Your task to perform on an android device: Toggle the flashlight Image 0: 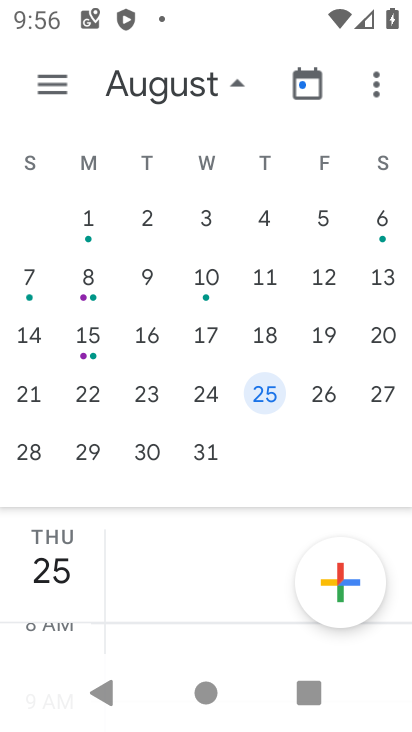
Step 0: press home button
Your task to perform on an android device: Toggle the flashlight Image 1: 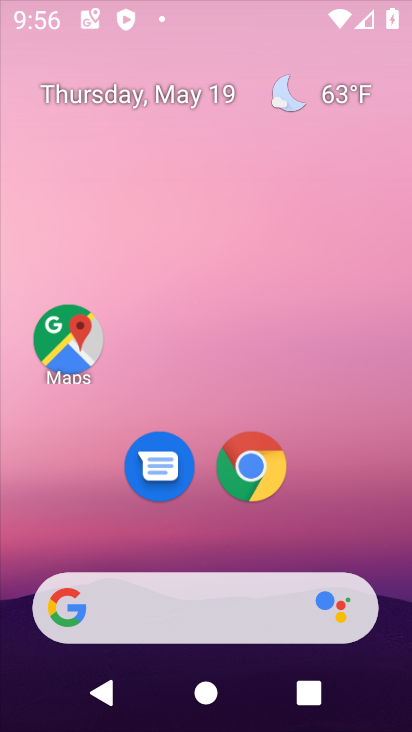
Step 1: drag from (389, 617) to (281, 14)
Your task to perform on an android device: Toggle the flashlight Image 2: 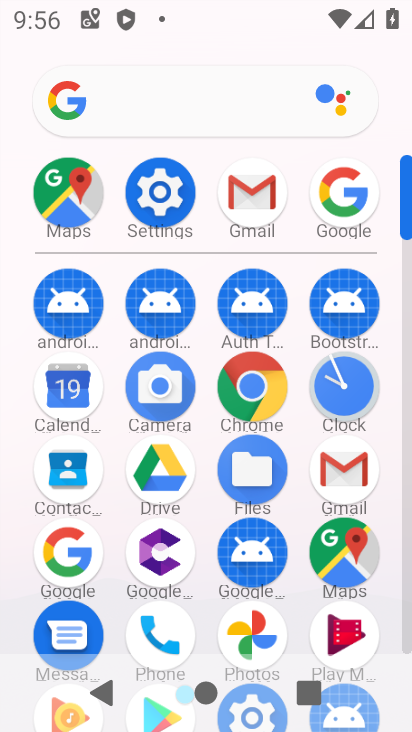
Step 2: click (164, 193)
Your task to perform on an android device: Toggle the flashlight Image 3: 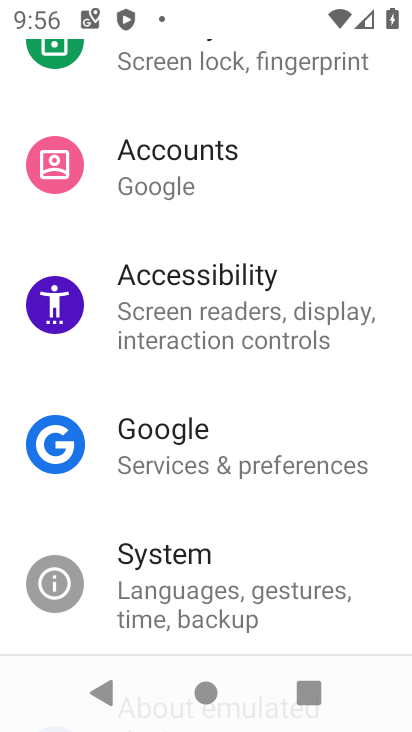
Step 3: task complete